Your task to perform on an android device: see creations saved in the google photos Image 0: 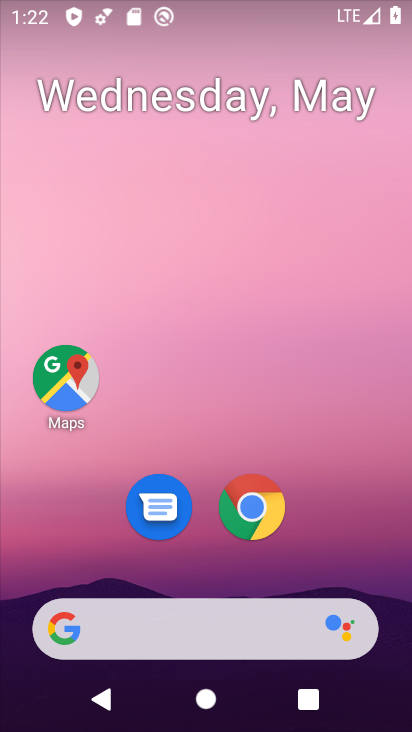
Step 0: drag from (387, 604) to (250, 137)
Your task to perform on an android device: see creations saved in the google photos Image 1: 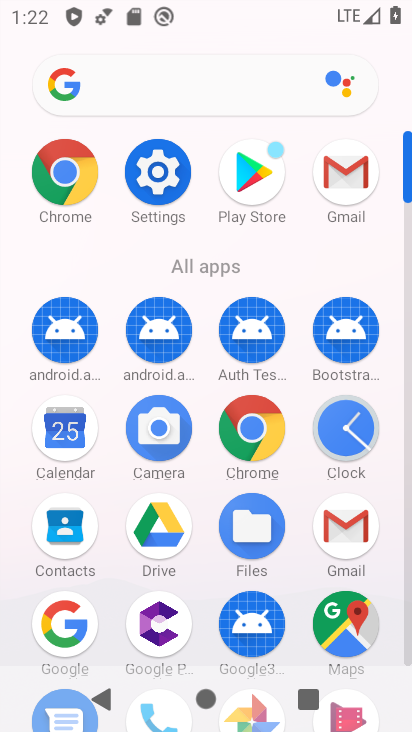
Step 1: click (408, 647)
Your task to perform on an android device: see creations saved in the google photos Image 2: 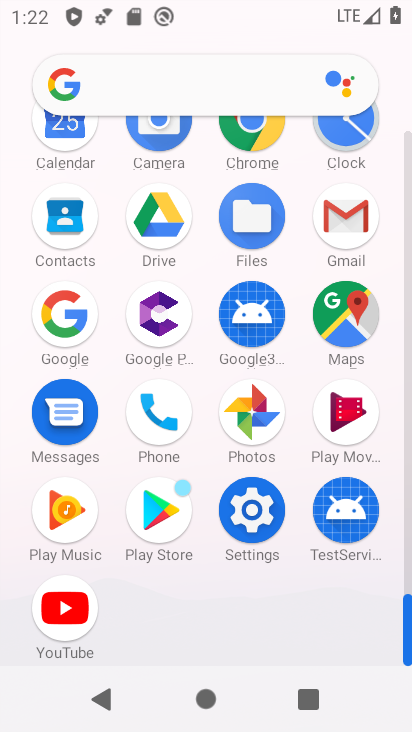
Step 2: click (264, 415)
Your task to perform on an android device: see creations saved in the google photos Image 3: 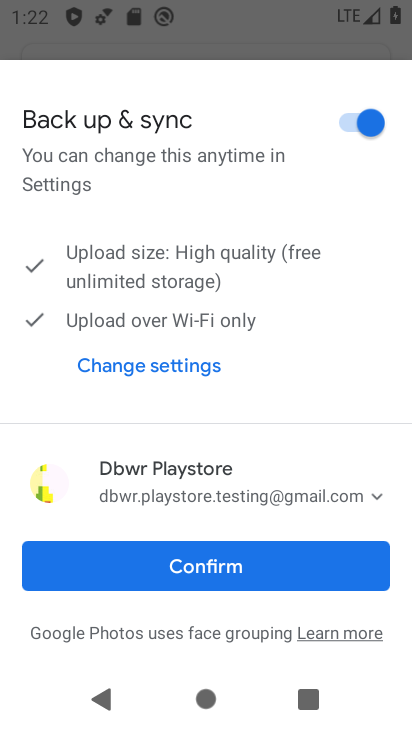
Step 3: click (275, 576)
Your task to perform on an android device: see creations saved in the google photos Image 4: 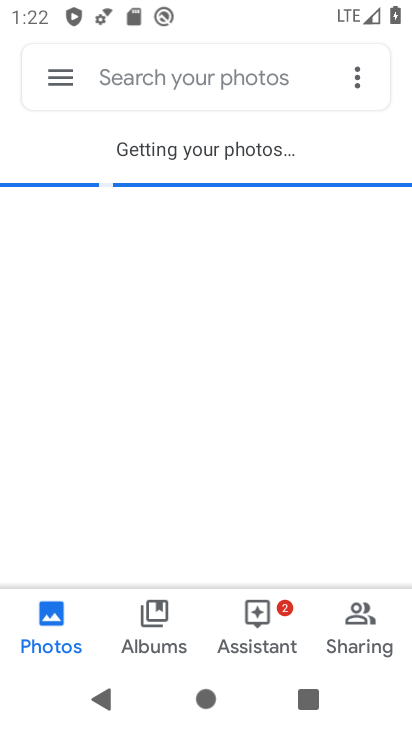
Step 4: click (171, 80)
Your task to perform on an android device: see creations saved in the google photos Image 5: 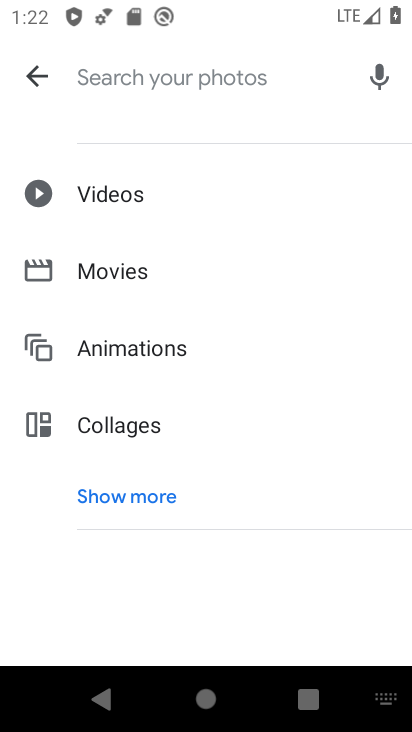
Step 5: click (149, 490)
Your task to perform on an android device: see creations saved in the google photos Image 6: 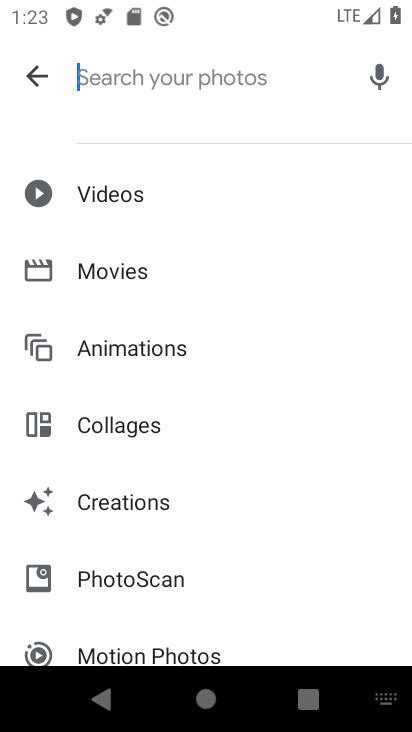
Step 6: click (145, 503)
Your task to perform on an android device: see creations saved in the google photos Image 7: 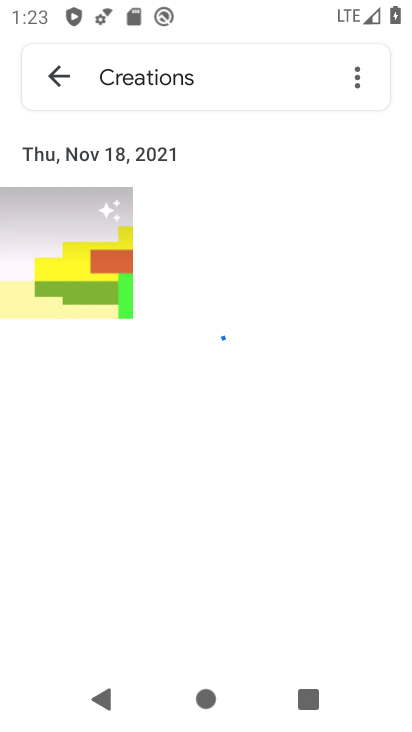
Step 7: task complete